Your task to perform on an android device: Open sound settings Image 0: 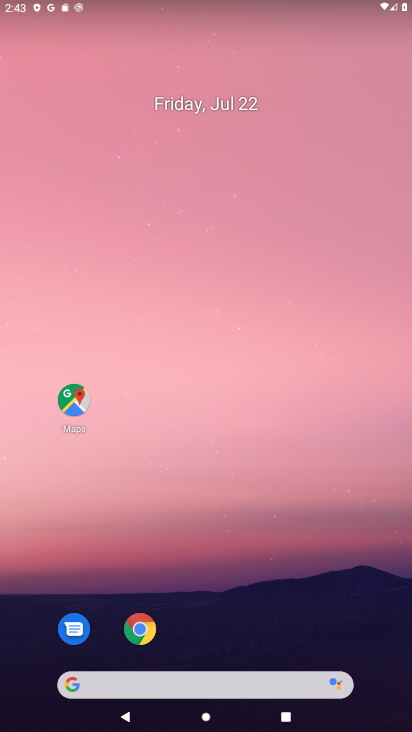
Step 0: drag from (236, 604) to (235, 17)
Your task to perform on an android device: Open sound settings Image 1: 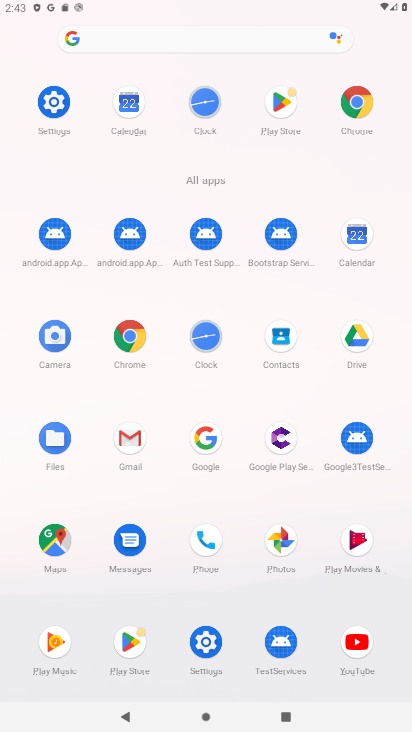
Step 1: click (56, 102)
Your task to perform on an android device: Open sound settings Image 2: 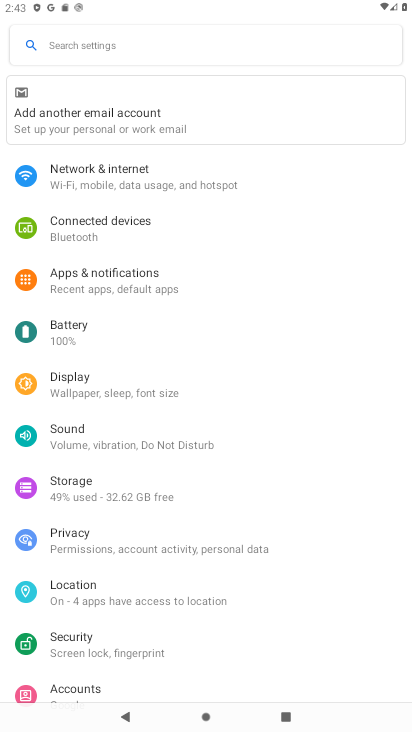
Step 2: click (58, 425)
Your task to perform on an android device: Open sound settings Image 3: 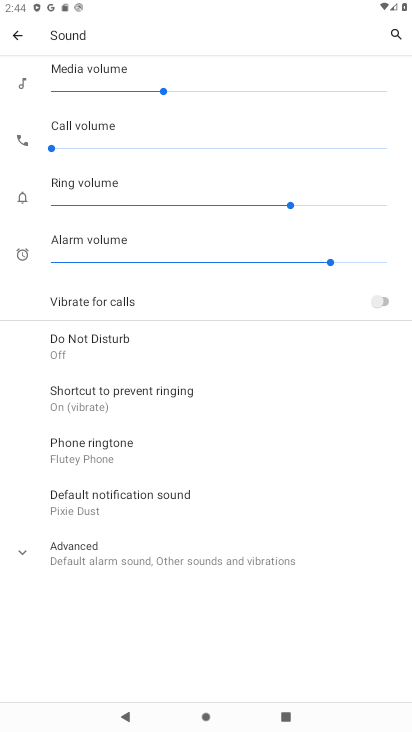
Step 3: task complete